Your task to perform on an android device: clear history in the chrome app Image 0: 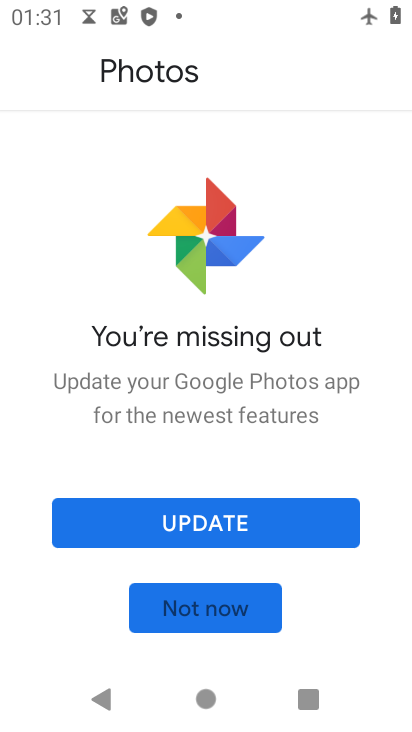
Step 0: press home button
Your task to perform on an android device: clear history in the chrome app Image 1: 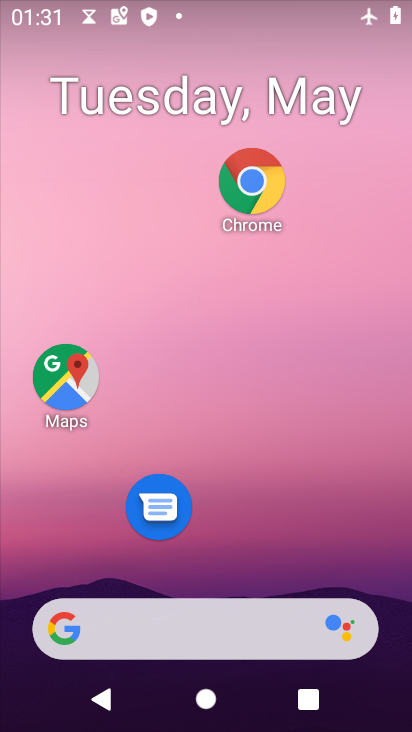
Step 1: drag from (309, 515) to (284, 230)
Your task to perform on an android device: clear history in the chrome app Image 2: 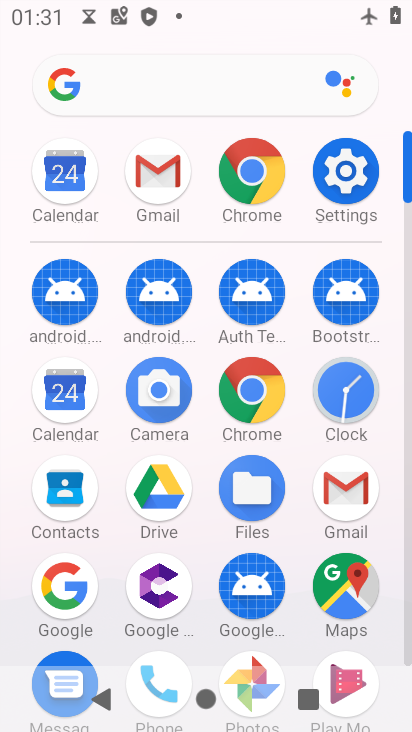
Step 2: click (243, 391)
Your task to perform on an android device: clear history in the chrome app Image 3: 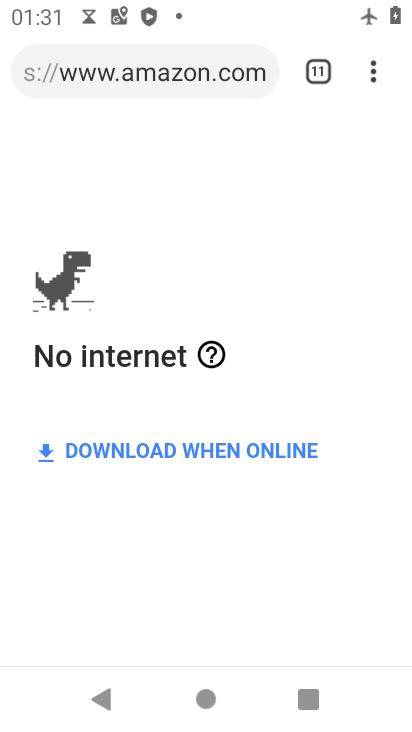
Step 3: click (375, 67)
Your task to perform on an android device: clear history in the chrome app Image 4: 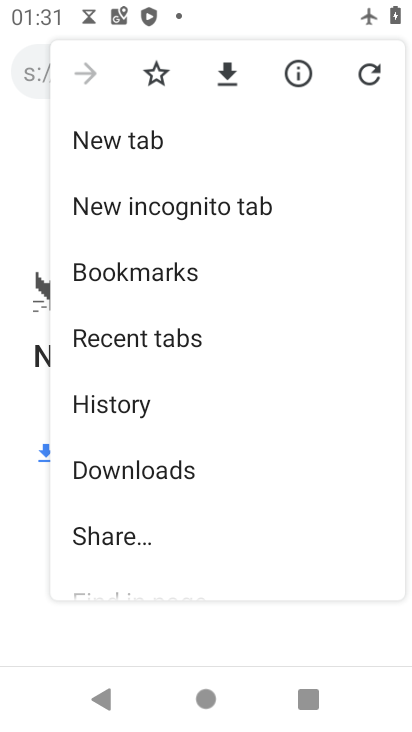
Step 4: drag from (191, 487) to (234, 258)
Your task to perform on an android device: clear history in the chrome app Image 5: 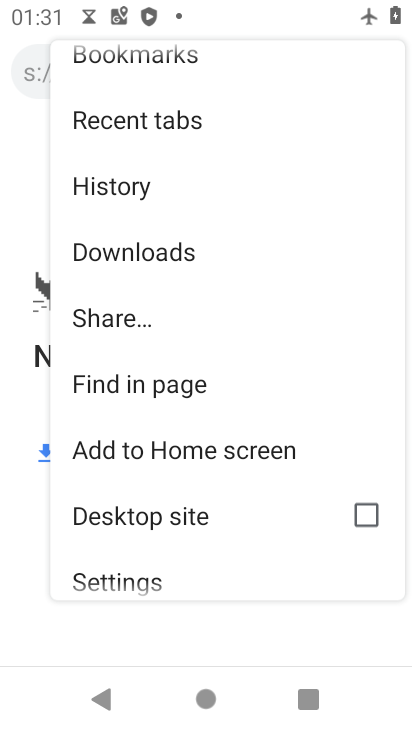
Step 5: drag from (216, 510) to (246, 310)
Your task to perform on an android device: clear history in the chrome app Image 6: 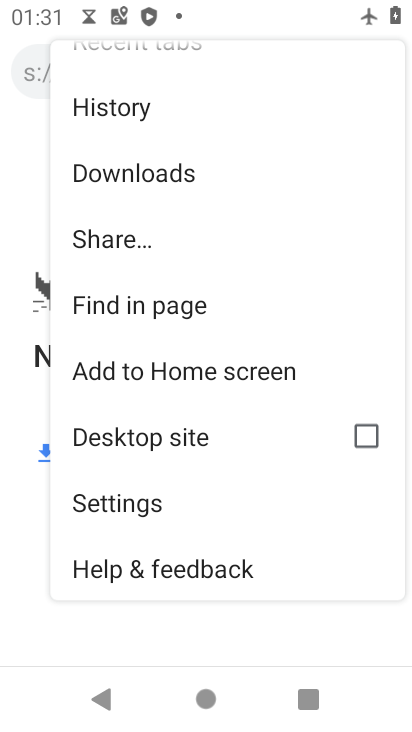
Step 6: click (121, 506)
Your task to perform on an android device: clear history in the chrome app Image 7: 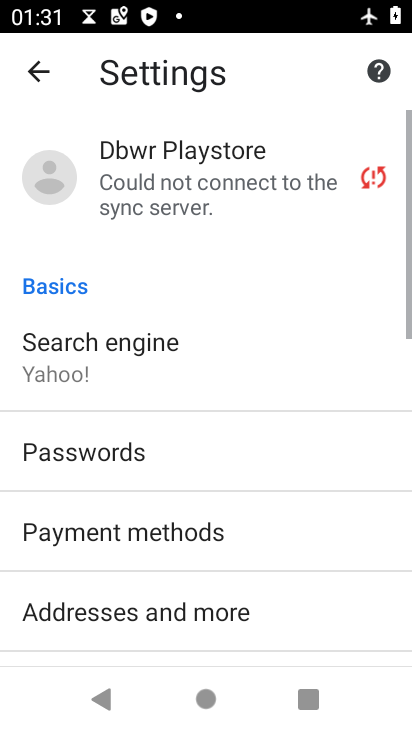
Step 7: drag from (222, 577) to (337, 161)
Your task to perform on an android device: clear history in the chrome app Image 8: 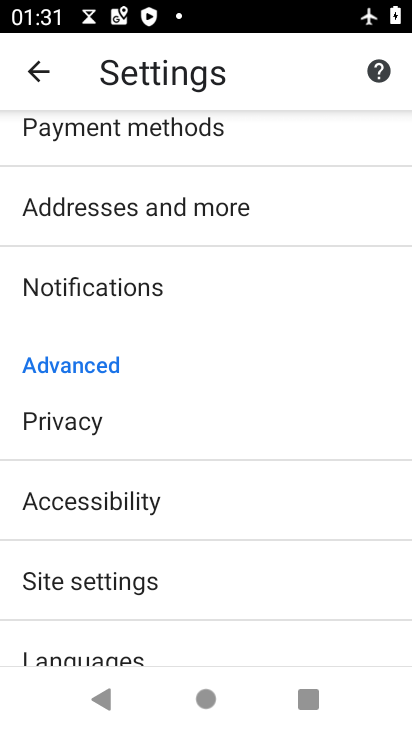
Step 8: drag from (173, 568) to (237, 251)
Your task to perform on an android device: clear history in the chrome app Image 9: 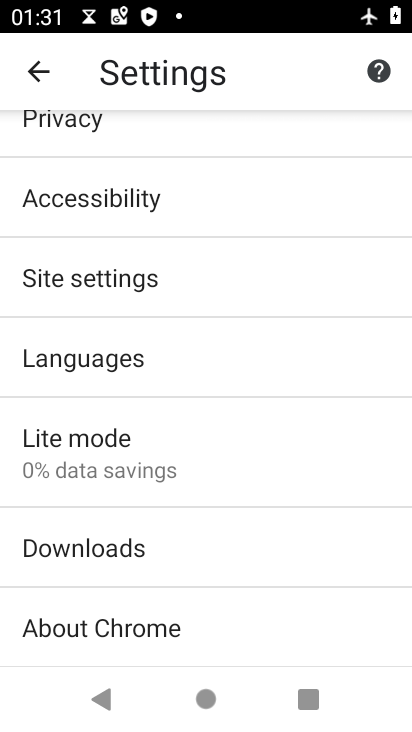
Step 9: click (52, 62)
Your task to perform on an android device: clear history in the chrome app Image 10: 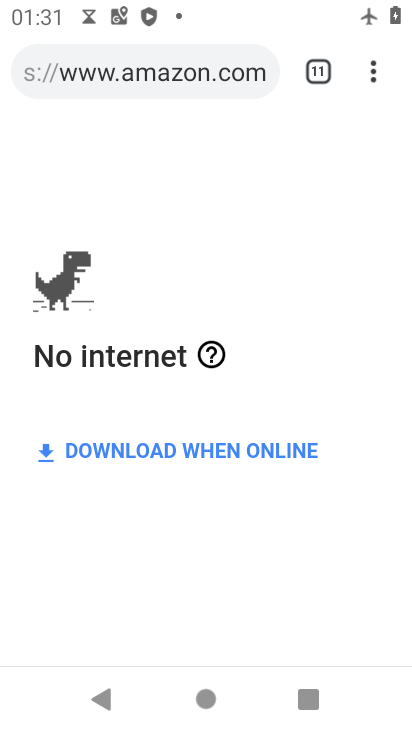
Step 10: press back button
Your task to perform on an android device: clear history in the chrome app Image 11: 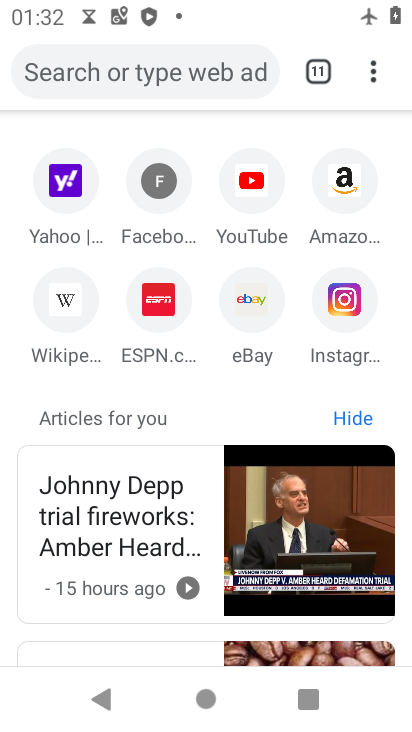
Step 11: press home button
Your task to perform on an android device: clear history in the chrome app Image 12: 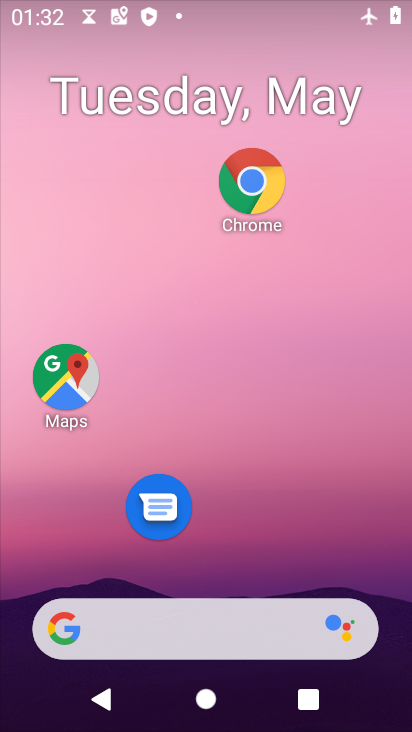
Step 12: drag from (271, 509) to (284, 338)
Your task to perform on an android device: clear history in the chrome app Image 13: 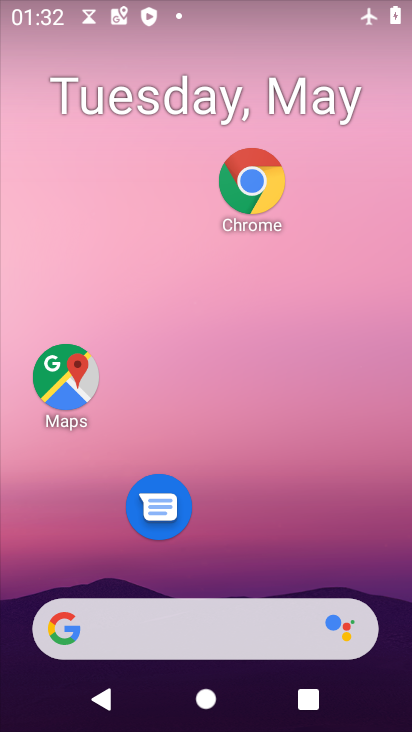
Step 13: click (243, 175)
Your task to perform on an android device: clear history in the chrome app Image 14: 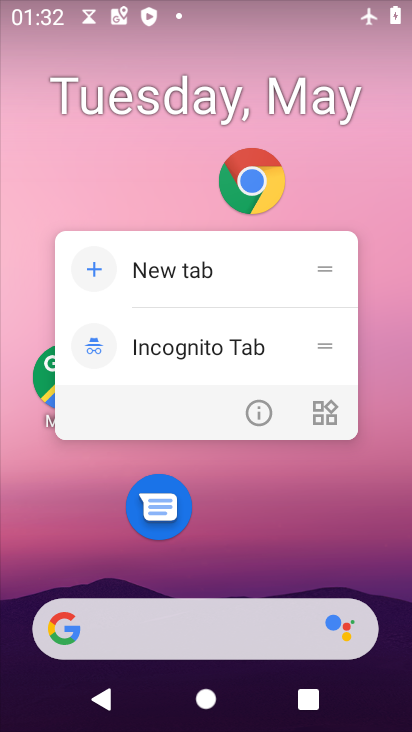
Step 14: click (246, 175)
Your task to perform on an android device: clear history in the chrome app Image 15: 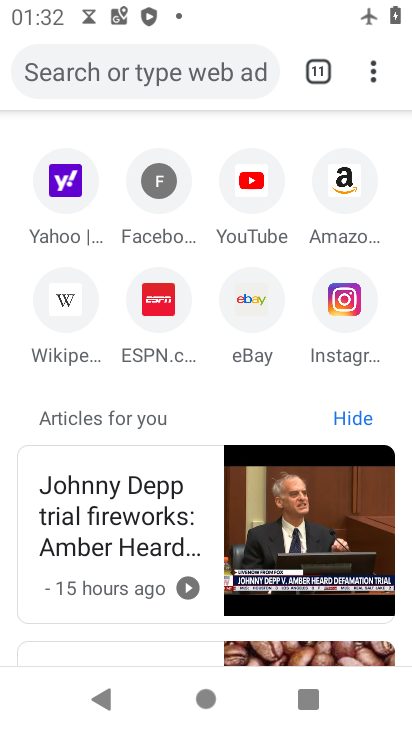
Step 15: click (357, 70)
Your task to perform on an android device: clear history in the chrome app Image 16: 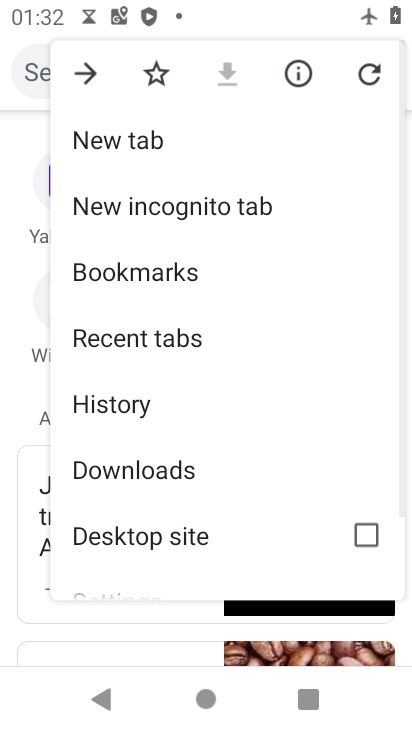
Step 16: click (150, 426)
Your task to perform on an android device: clear history in the chrome app Image 17: 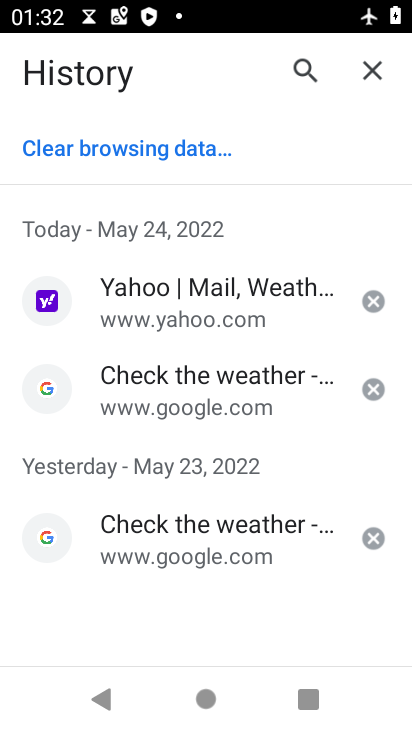
Step 17: click (133, 150)
Your task to perform on an android device: clear history in the chrome app Image 18: 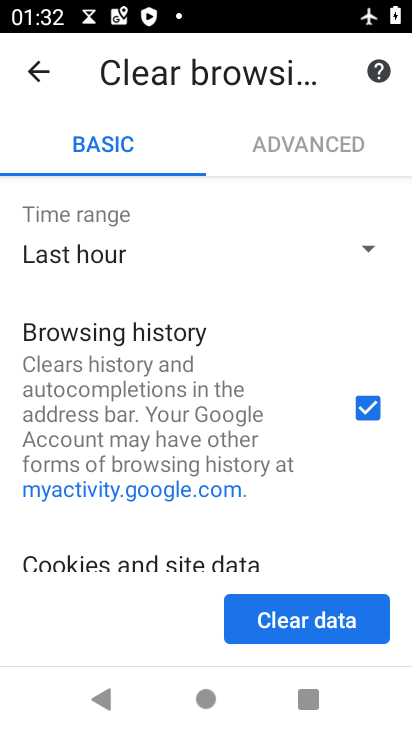
Step 18: click (246, 619)
Your task to perform on an android device: clear history in the chrome app Image 19: 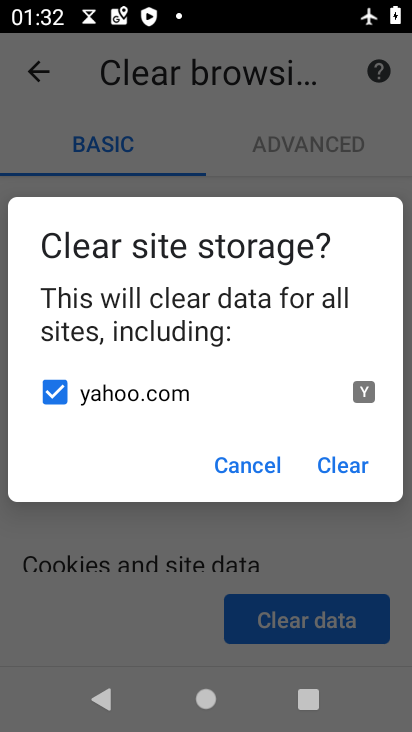
Step 19: click (337, 464)
Your task to perform on an android device: clear history in the chrome app Image 20: 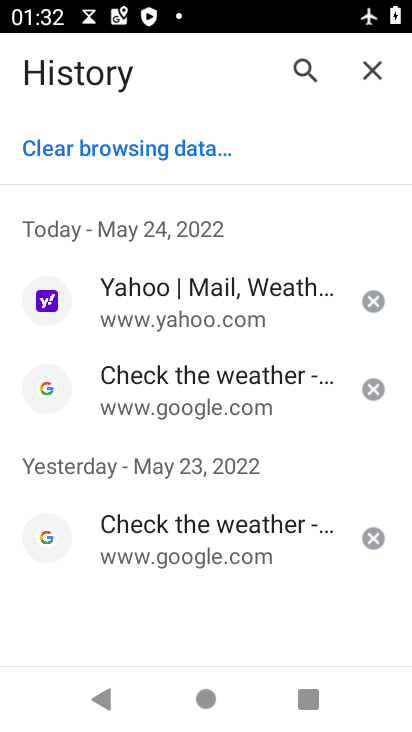
Step 20: task complete